Your task to perform on an android device: Open calendar and show me the third week of next month Image 0: 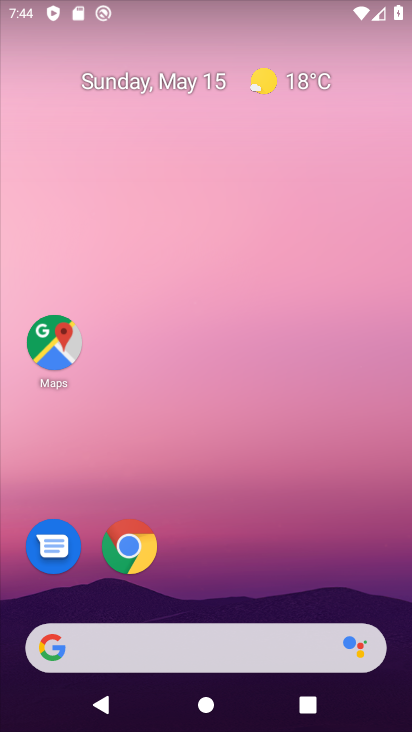
Step 0: drag from (295, 597) to (214, 187)
Your task to perform on an android device: Open calendar and show me the third week of next month Image 1: 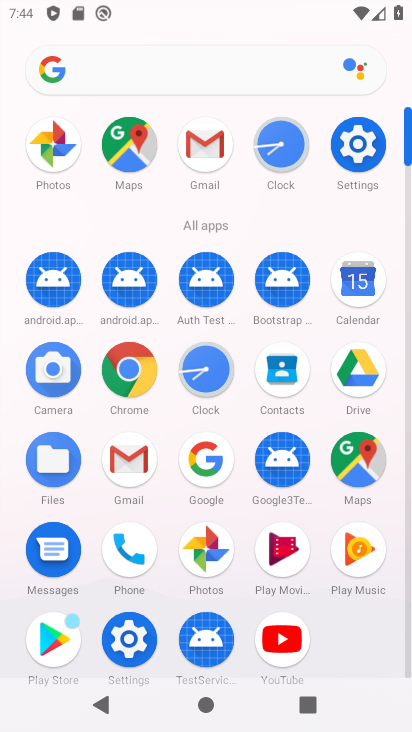
Step 1: click (360, 277)
Your task to perform on an android device: Open calendar and show me the third week of next month Image 2: 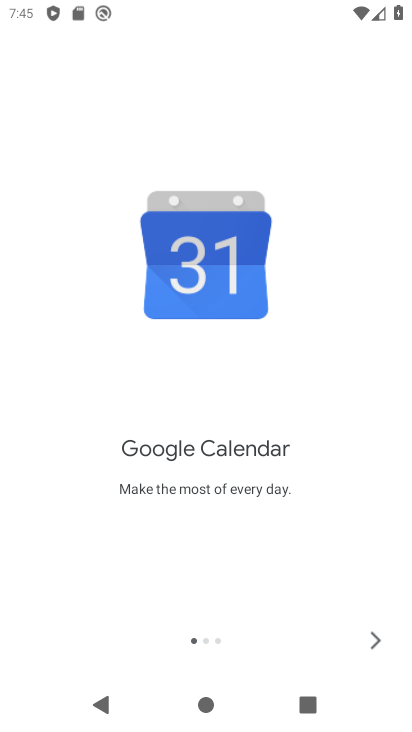
Step 2: click (366, 638)
Your task to perform on an android device: Open calendar and show me the third week of next month Image 3: 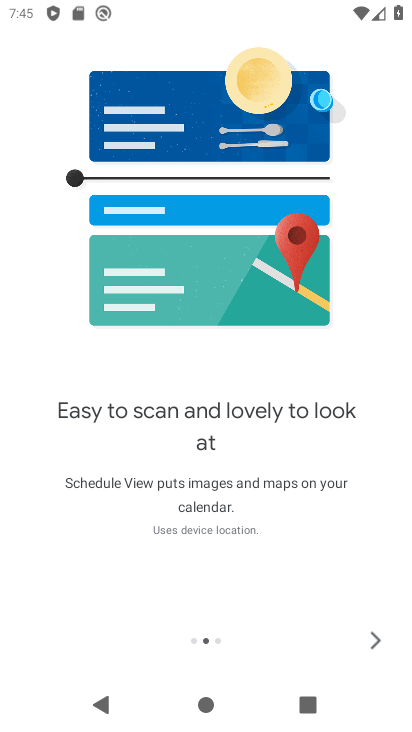
Step 3: click (366, 638)
Your task to perform on an android device: Open calendar and show me the third week of next month Image 4: 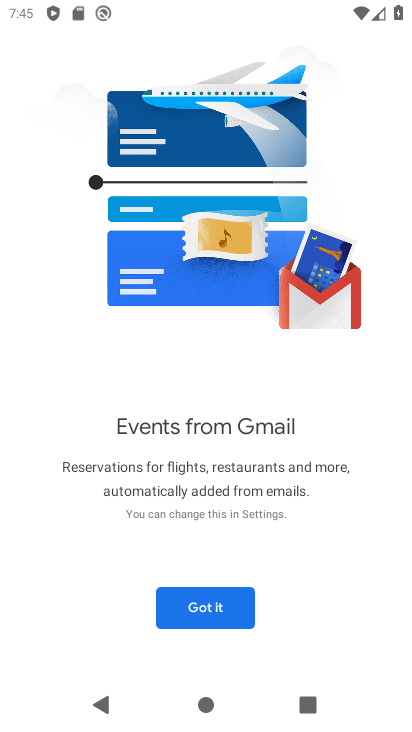
Step 4: click (215, 594)
Your task to perform on an android device: Open calendar and show me the third week of next month Image 5: 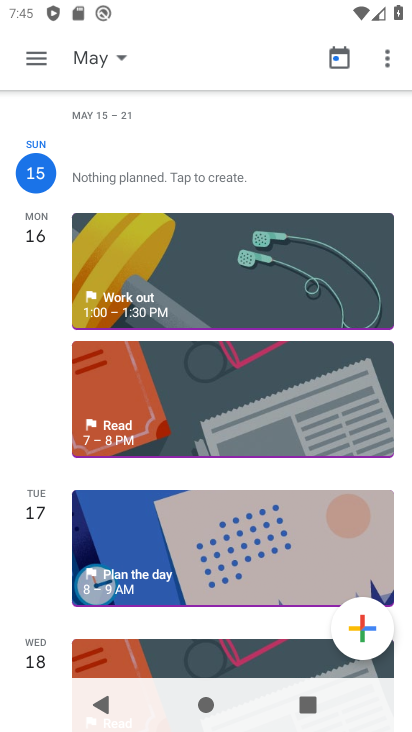
Step 5: click (40, 49)
Your task to perform on an android device: Open calendar and show me the third week of next month Image 6: 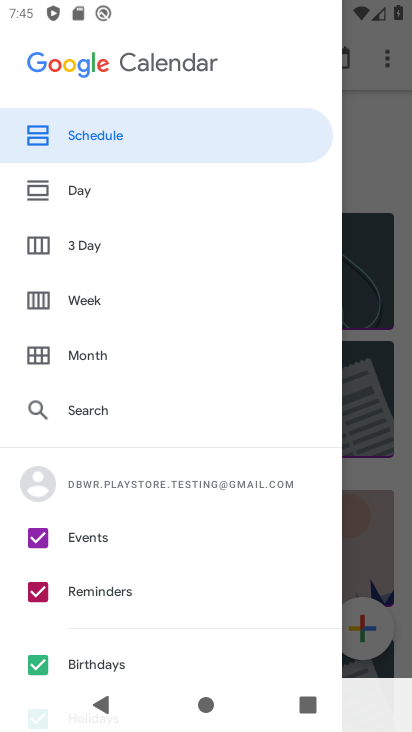
Step 6: click (117, 347)
Your task to perform on an android device: Open calendar and show me the third week of next month Image 7: 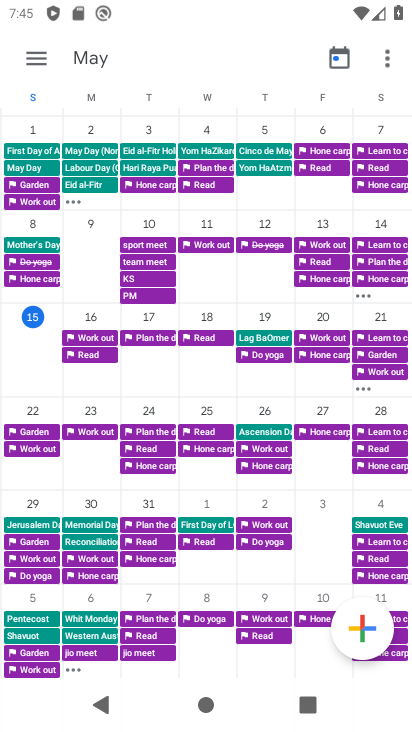
Step 7: task complete